Your task to perform on an android device: open sync settings in chrome Image 0: 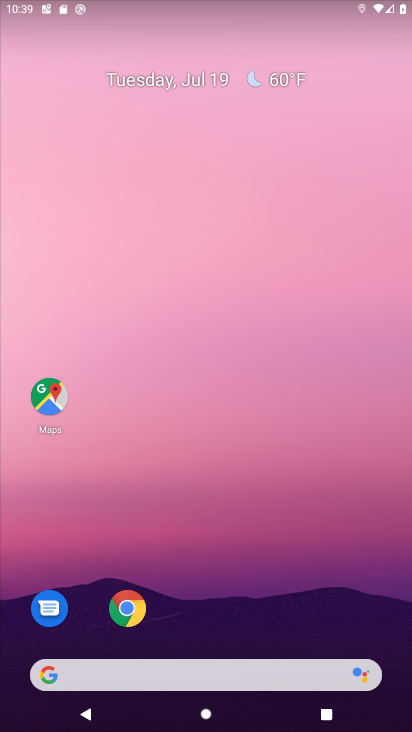
Step 0: click (211, 54)
Your task to perform on an android device: open sync settings in chrome Image 1: 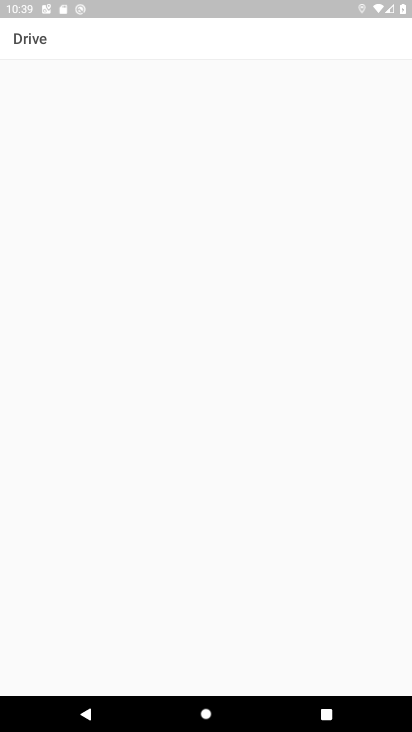
Step 1: press home button
Your task to perform on an android device: open sync settings in chrome Image 2: 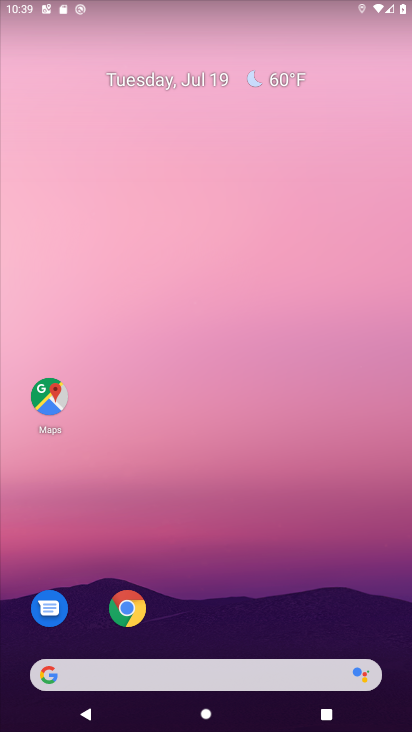
Step 2: click (130, 617)
Your task to perform on an android device: open sync settings in chrome Image 3: 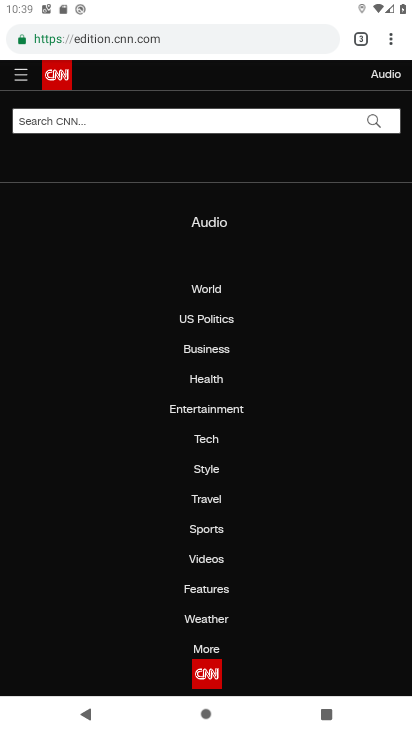
Step 3: click (385, 42)
Your task to perform on an android device: open sync settings in chrome Image 4: 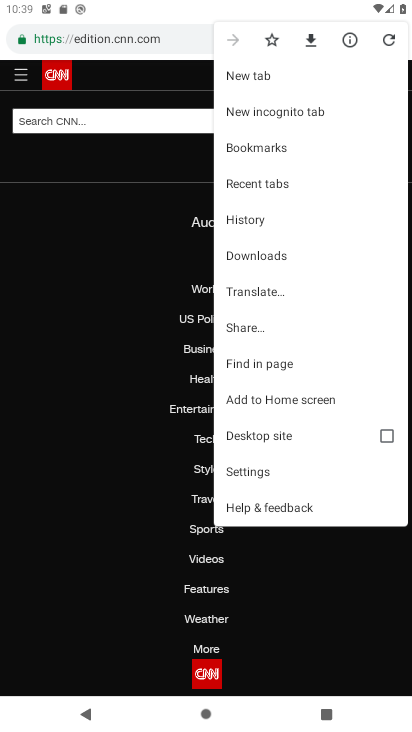
Step 4: click (234, 467)
Your task to perform on an android device: open sync settings in chrome Image 5: 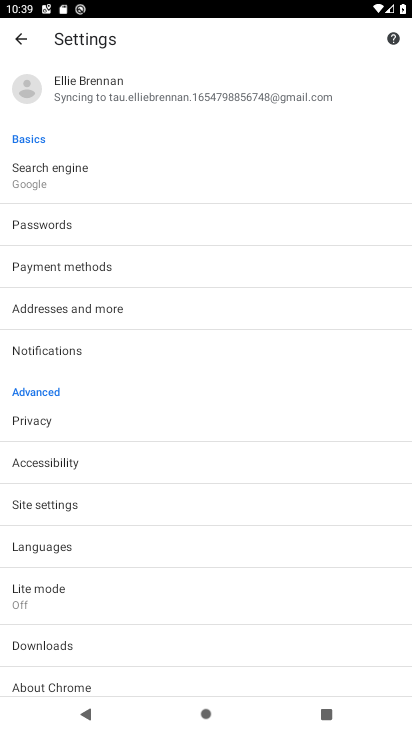
Step 5: click (47, 74)
Your task to perform on an android device: open sync settings in chrome Image 6: 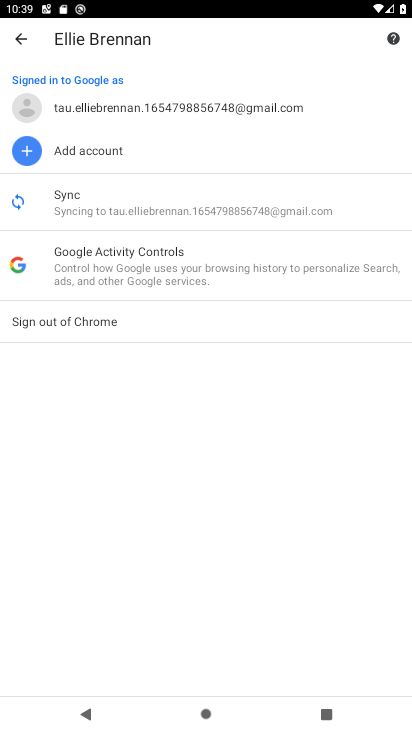
Step 6: click (69, 203)
Your task to perform on an android device: open sync settings in chrome Image 7: 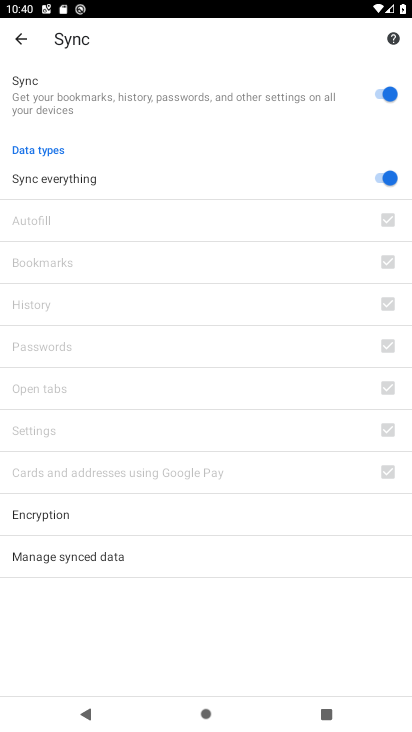
Step 7: task complete